Your task to perform on an android device: turn notification dots on Image 0: 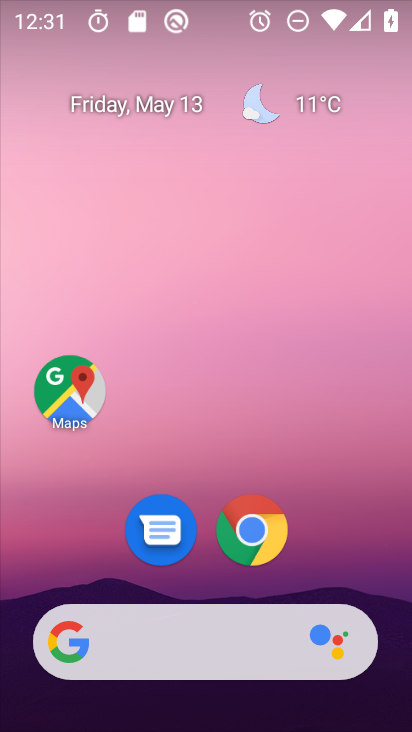
Step 0: press home button
Your task to perform on an android device: turn notification dots on Image 1: 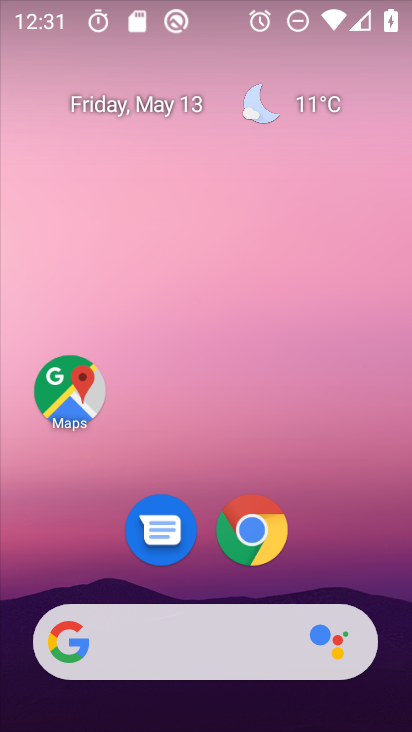
Step 1: drag from (182, 655) to (290, 124)
Your task to perform on an android device: turn notification dots on Image 2: 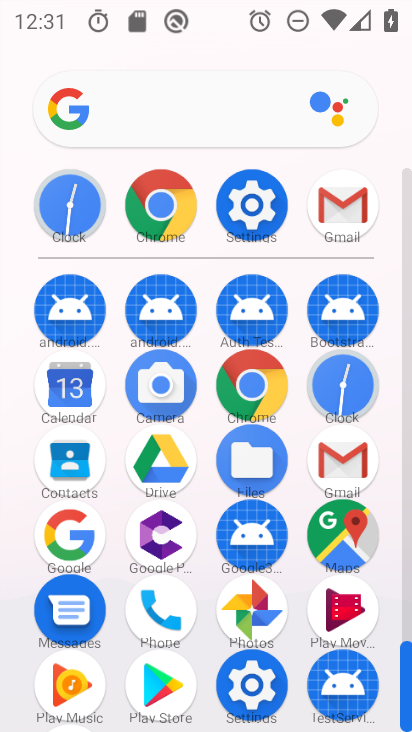
Step 2: click (251, 205)
Your task to perform on an android device: turn notification dots on Image 3: 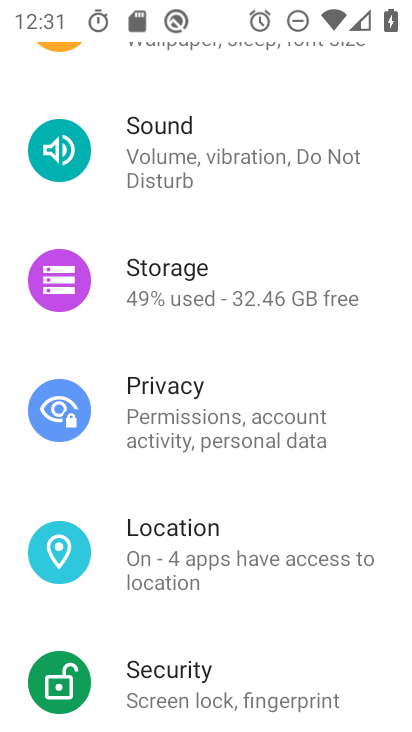
Step 3: drag from (288, 90) to (269, 493)
Your task to perform on an android device: turn notification dots on Image 4: 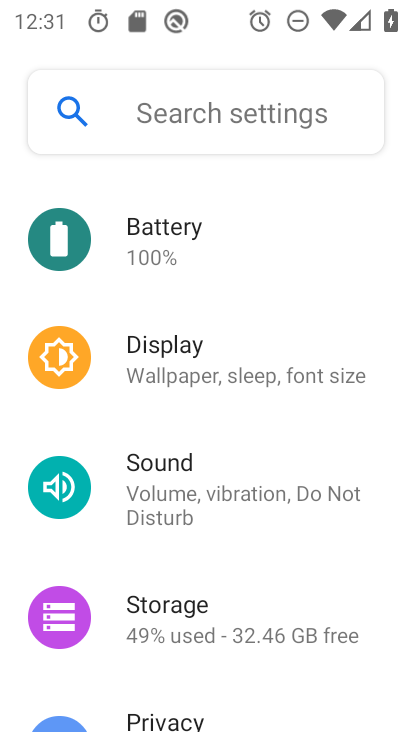
Step 4: drag from (238, 582) to (253, 648)
Your task to perform on an android device: turn notification dots on Image 5: 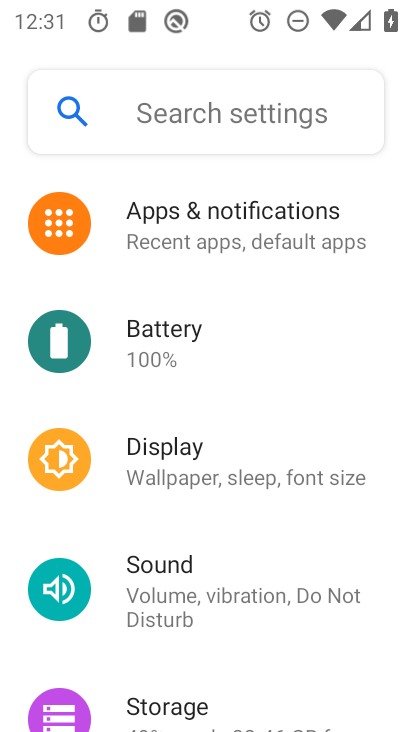
Step 5: click (260, 218)
Your task to perform on an android device: turn notification dots on Image 6: 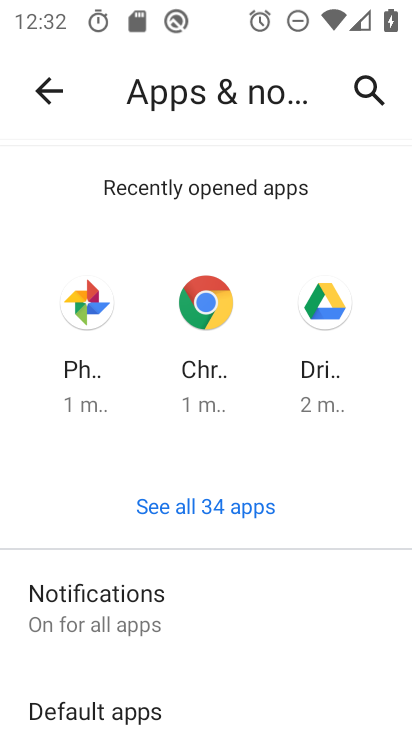
Step 6: drag from (245, 570) to (308, 423)
Your task to perform on an android device: turn notification dots on Image 7: 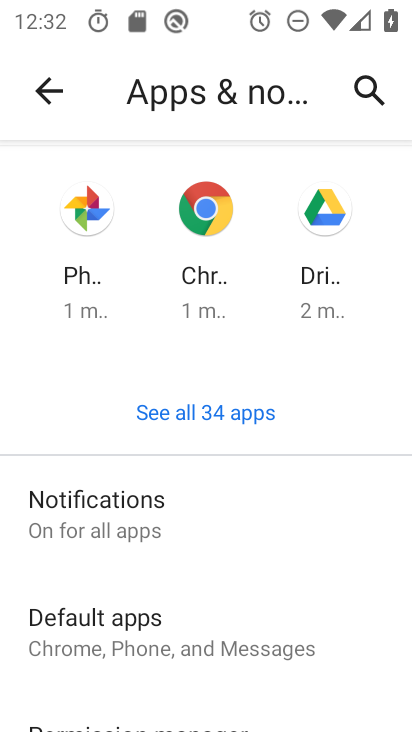
Step 7: click (117, 509)
Your task to perform on an android device: turn notification dots on Image 8: 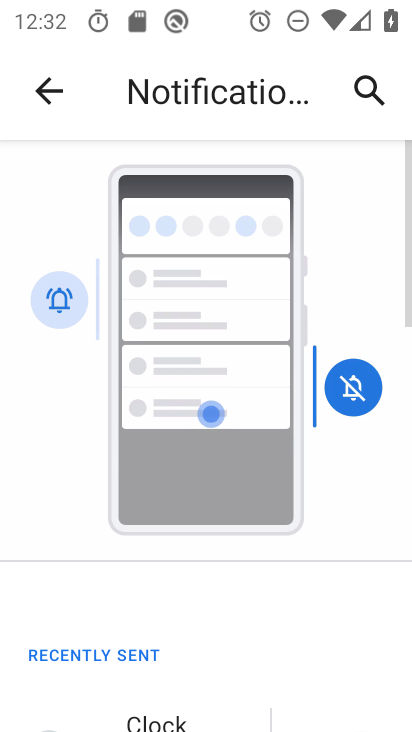
Step 8: drag from (220, 667) to (357, 151)
Your task to perform on an android device: turn notification dots on Image 9: 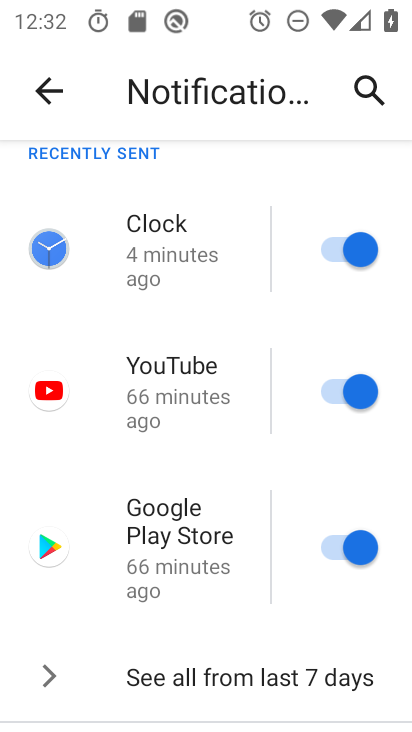
Step 9: drag from (208, 635) to (290, 181)
Your task to perform on an android device: turn notification dots on Image 10: 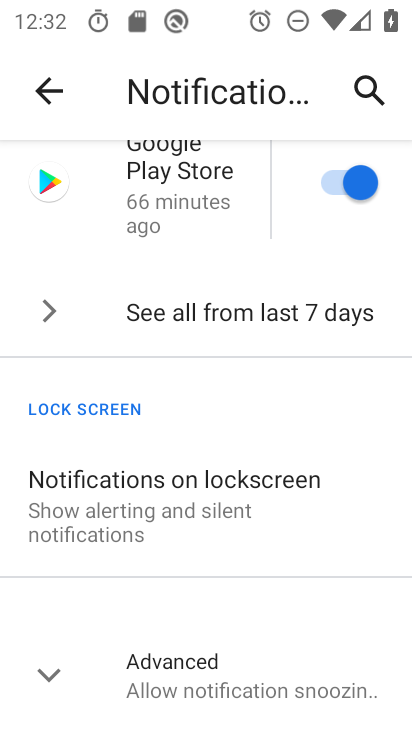
Step 10: click (166, 665)
Your task to perform on an android device: turn notification dots on Image 11: 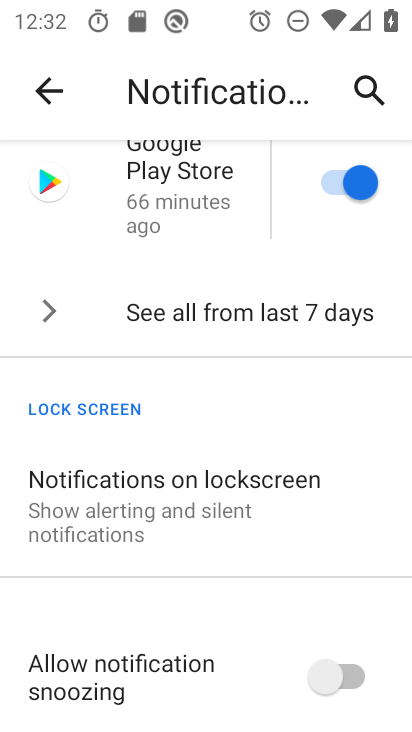
Step 11: task complete